Your task to perform on an android device: Open Youtube and go to "Your channel" Image 0: 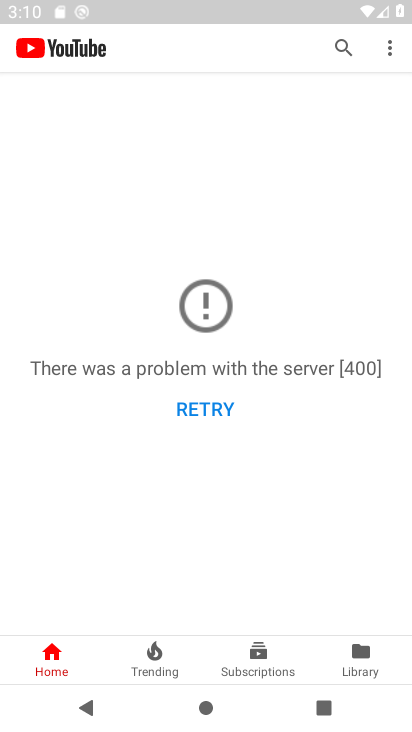
Step 0: click (182, 411)
Your task to perform on an android device: Open Youtube and go to "Your channel" Image 1: 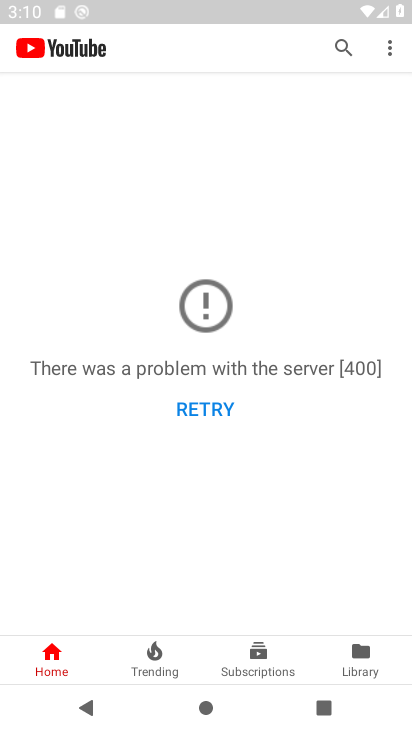
Step 1: click (183, 407)
Your task to perform on an android device: Open Youtube and go to "Your channel" Image 2: 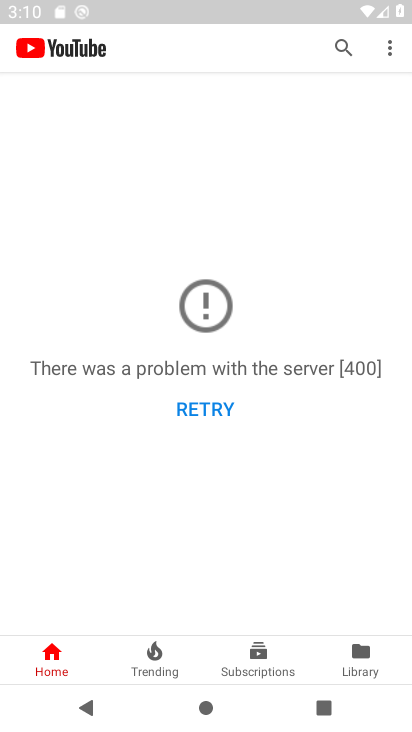
Step 2: click (183, 406)
Your task to perform on an android device: Open Youtube and go to "Your channel" Image 3: 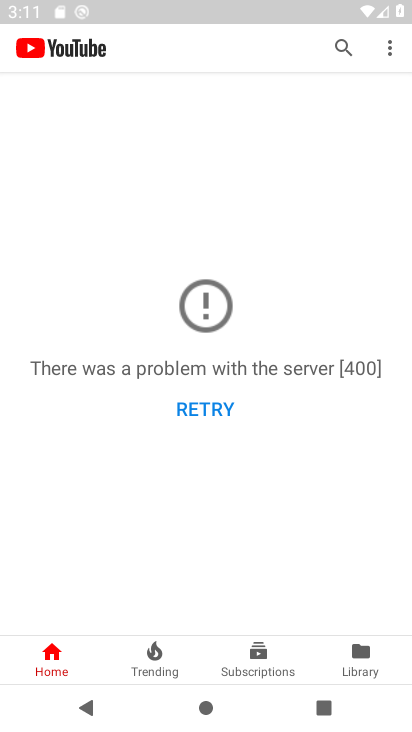
Step 3: click (184, 405)
Your task to perform on an android device: Open Youtube and go to "Your channel" Image 4: 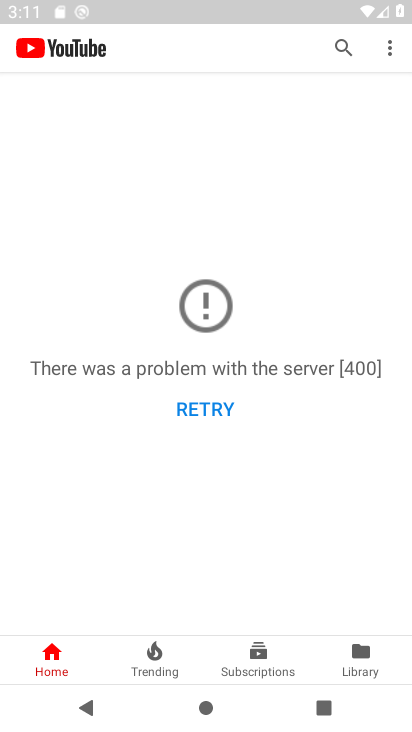
Step 4: task complete